Your task to perform on an android device: change the clock style Image 0: 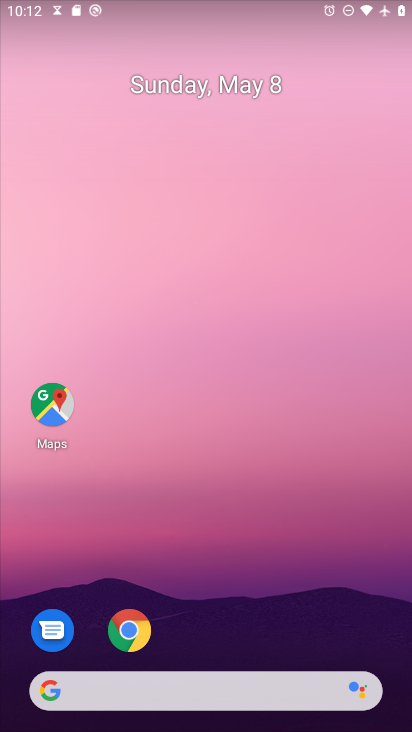
Step 0: drag from (211, 694) to (358, 132)
Your task to perform on an android device: change the clock style Image 1: 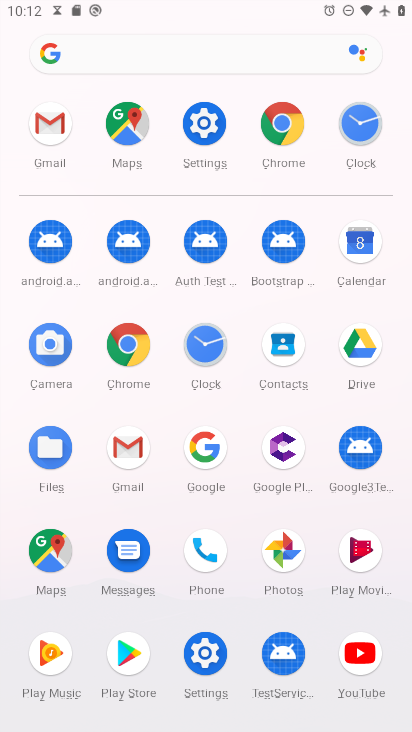
Step 1: click (363, 129)
Your task to perform on an android device: change the clock style Image 2: 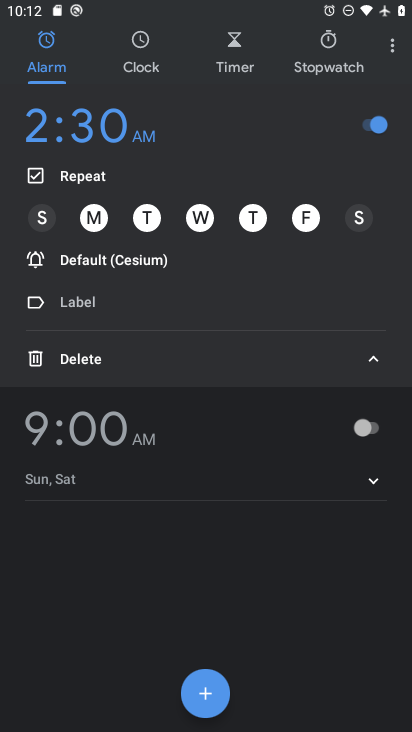
Step 2: click (391, 49)
Your task to perform on an android device: change the clock style Image 3: 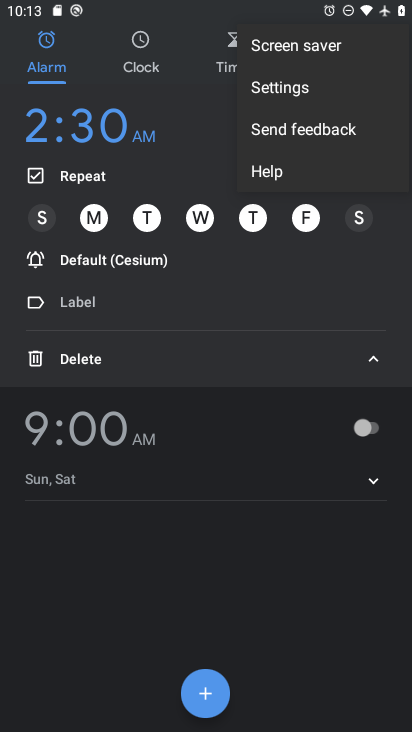
Step 3: click (297, 99)
Your task to perform on an android device: change the clock style Image 4: 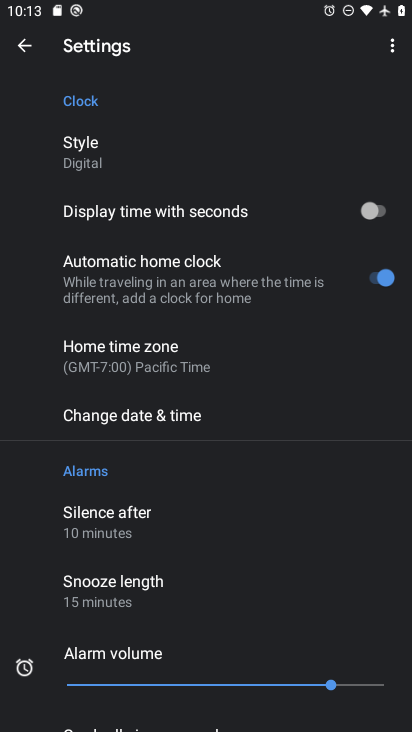
Step 4: click (102, 159)
Your task to perform on an android device: change the clock style Image 5: 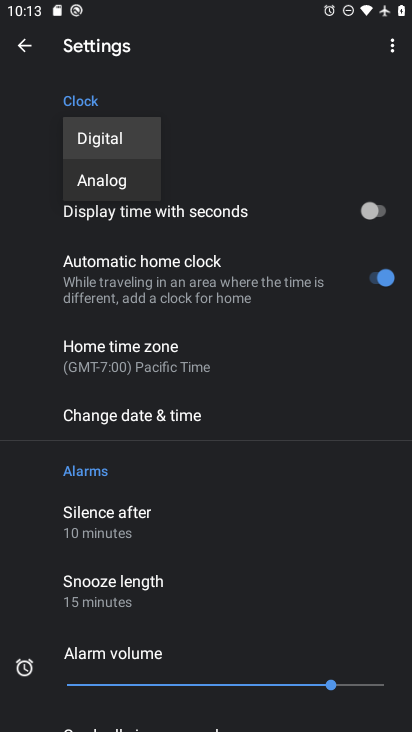
Step 5: click (129, 187)
Your task to perform on an android device: change the clock style Image 6: 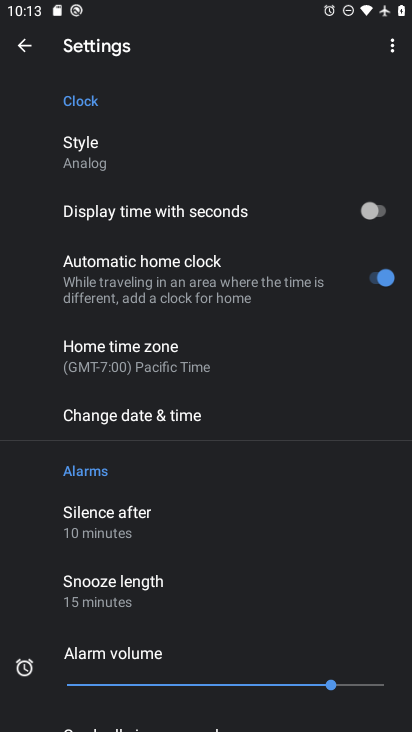
Step 6: task complete